Your task to perform on an android device: Find coffee shops on Maps Image 0: 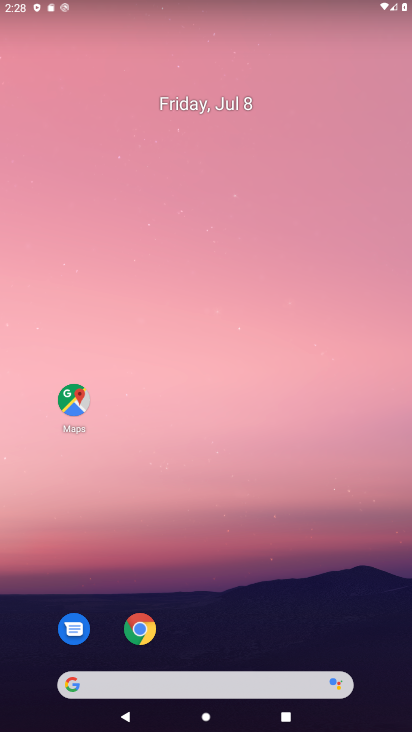
Step 0: click (375, 23)
Your task to perform on an android device: Find coffee shops on Maps Image 1: 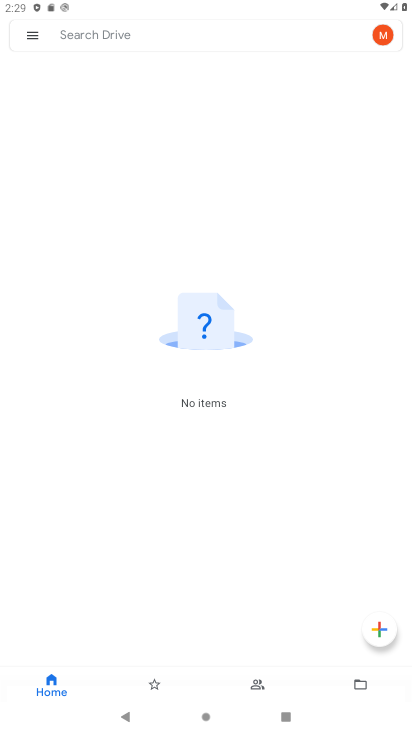
Step 1: press home button
Your task to perform on an android device: Find coffee shops on Maps Image 2: 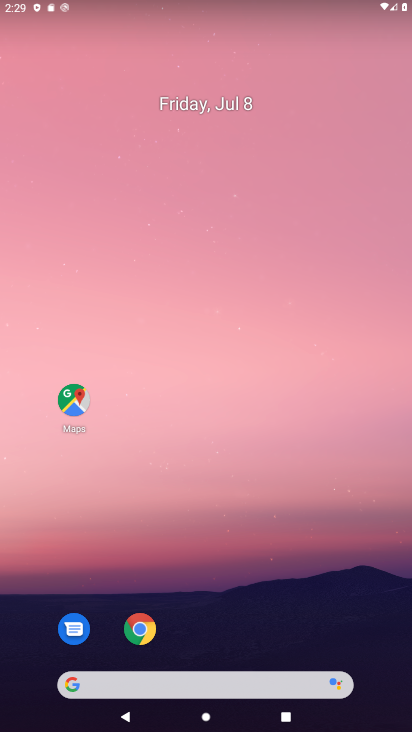
Step 2: click (82, 397)
Your task to perform on an android device: Find coffee shops on Maps Image 3: 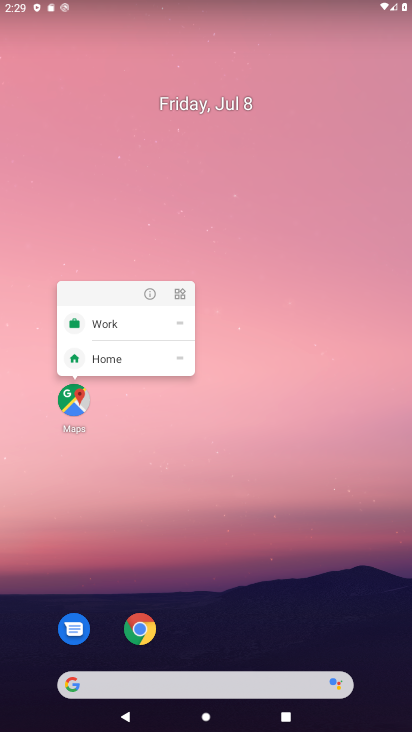
Step 3: click (67, 414)
Your task to perform on an android device: Find coffee shops on Maps Image 4: 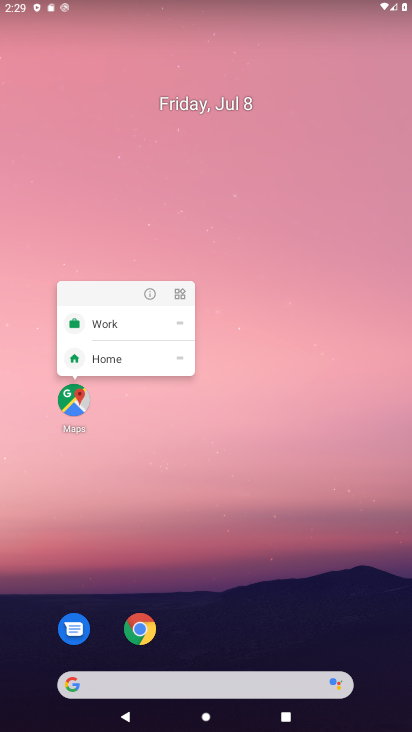
Step 4: click (75, 412)
Your task to perform on an android device: Find coffee shops on Maps Image 5: 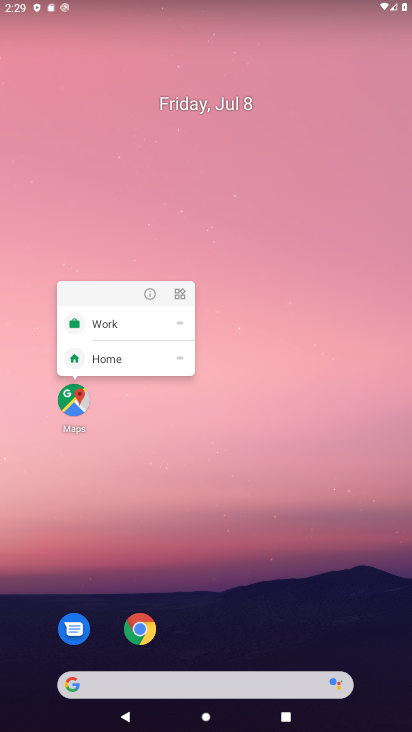
Step 5: task complete